Your task to perform on an android device: What is the recent news? Image 0: 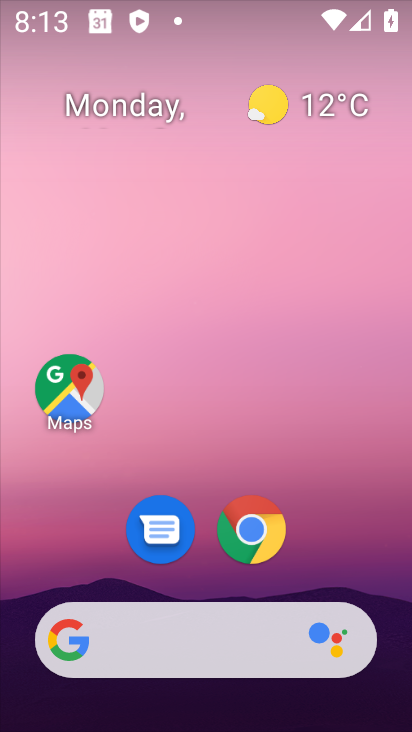
Step 0: drag from (39, 234) to (372, 386)
Your task to perform on an android device: What is the recent news? Image 1: 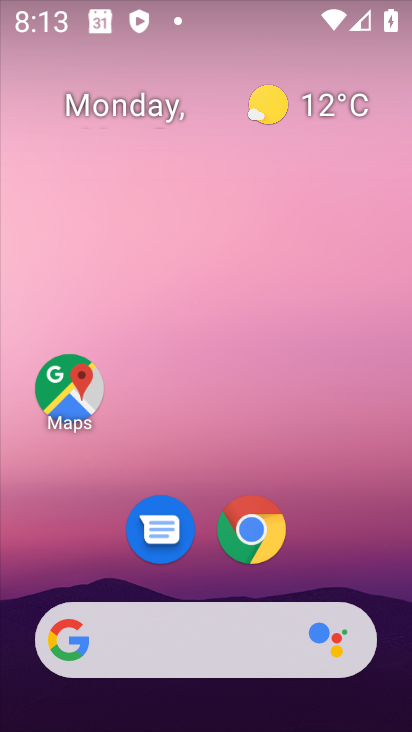
Step 1: task complete